Your task to perform on an android device: Show me the alarms in the clock app Image 0: 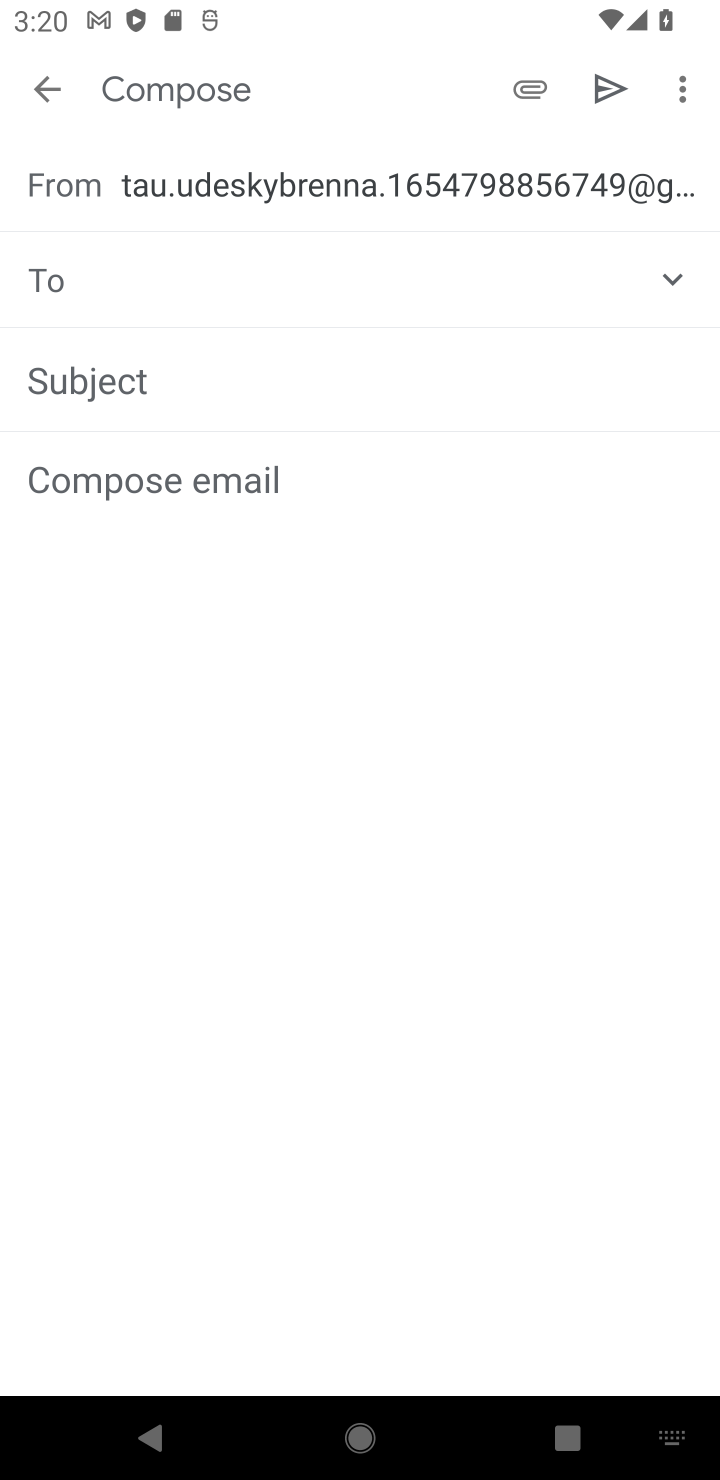
Step 0: press home button
Your task to perform on an android device: Show me the alarms in the clock app Image 1: 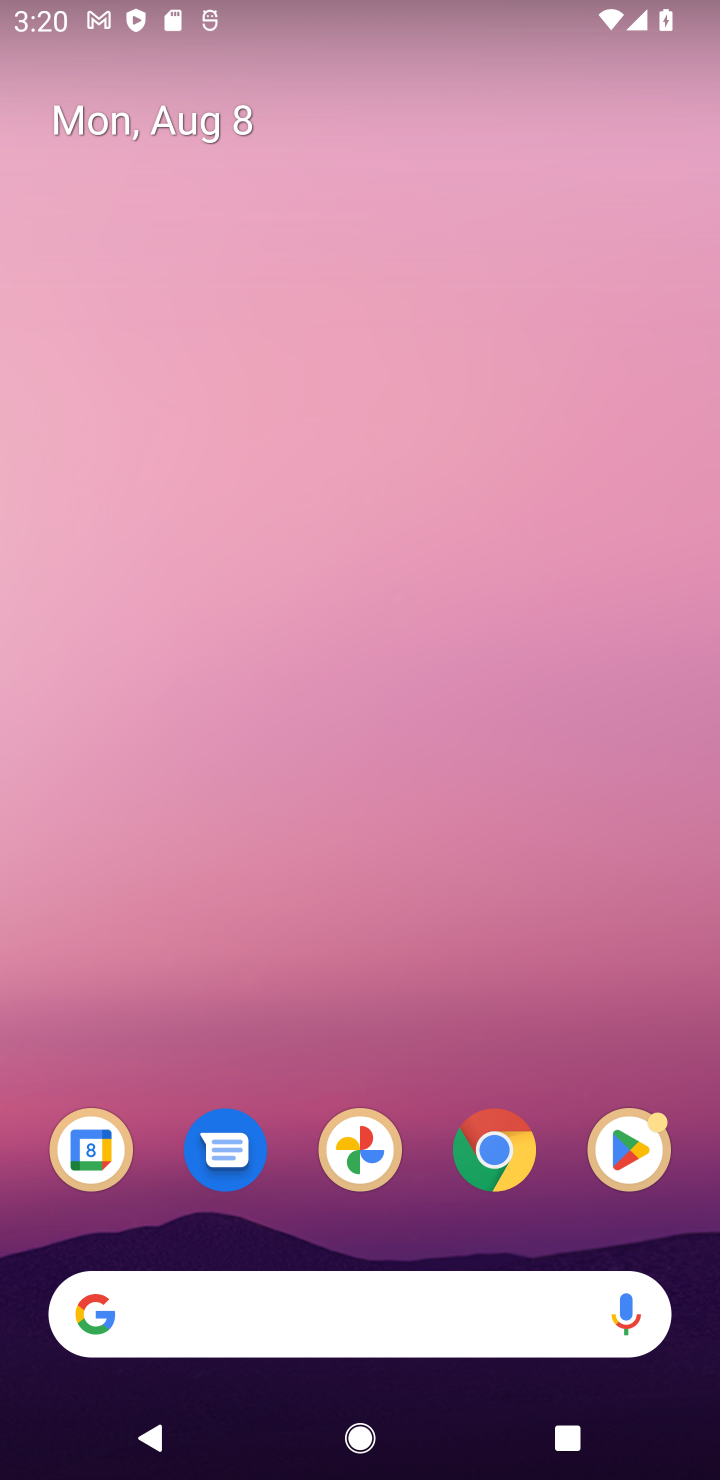
Step 1: drag from (291, 1238) to (218, 262)
Your task to perform on an android device: Show me the alarms in the clock app Image 2: 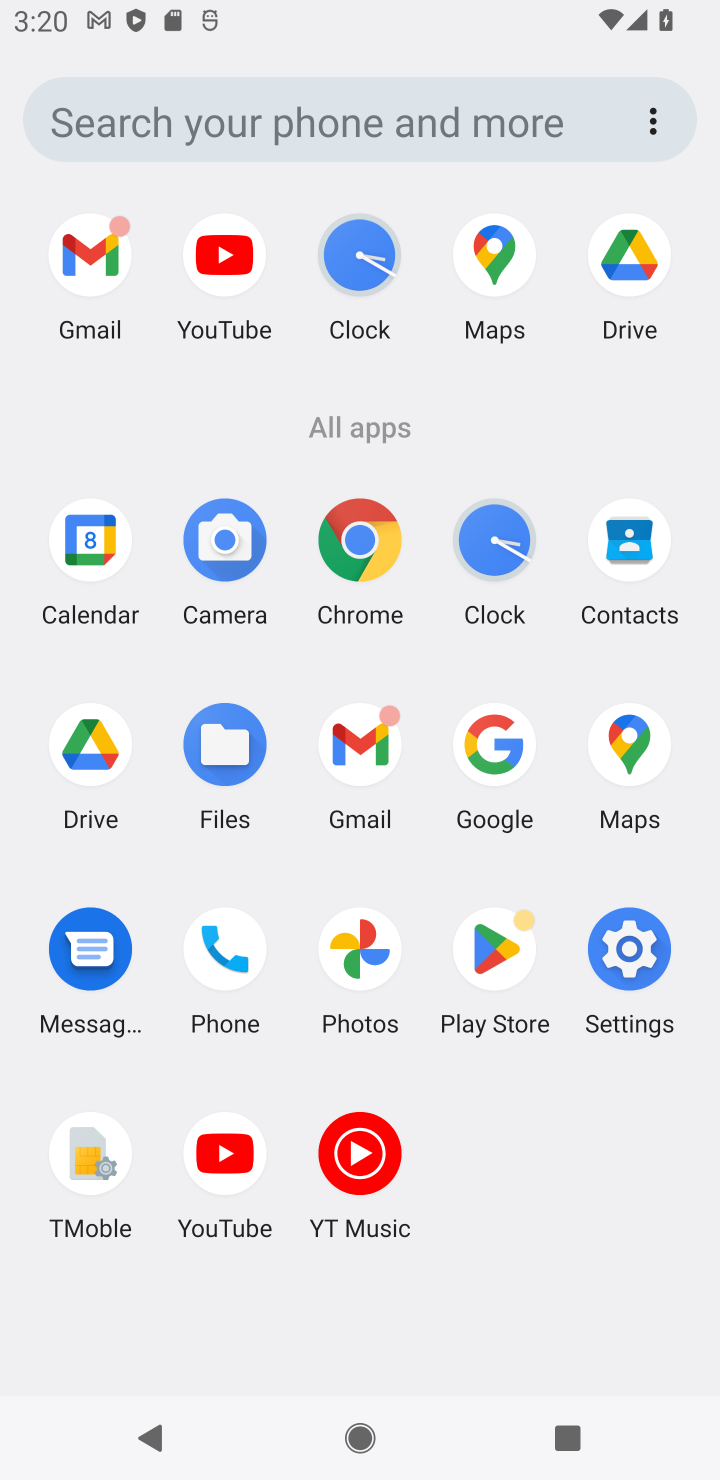
Step 2: click (485, 580)
Your task to perform on an android device: Show me the alarms in the clock app Image 3: 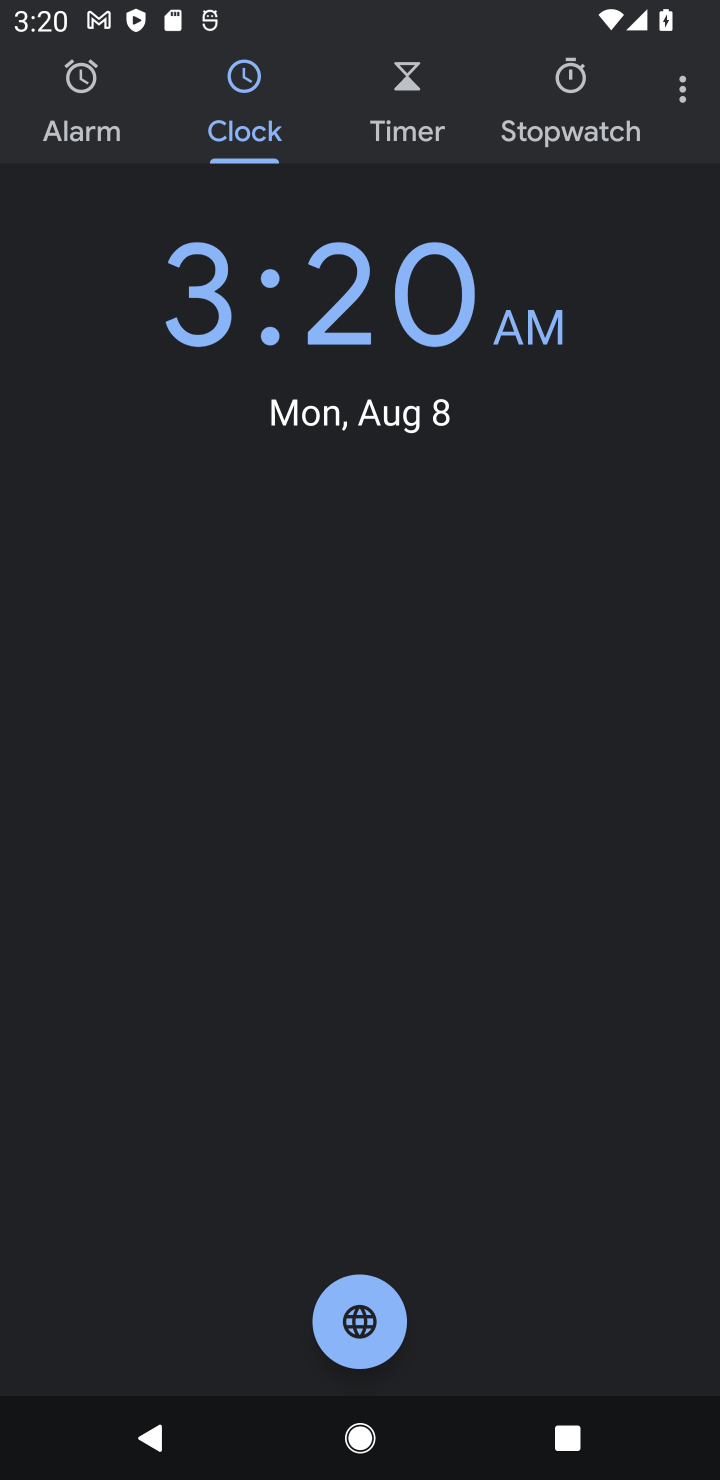
Step 3: task complete